Your task to perform on an android device: turn off translation in the chrome app Image 0: 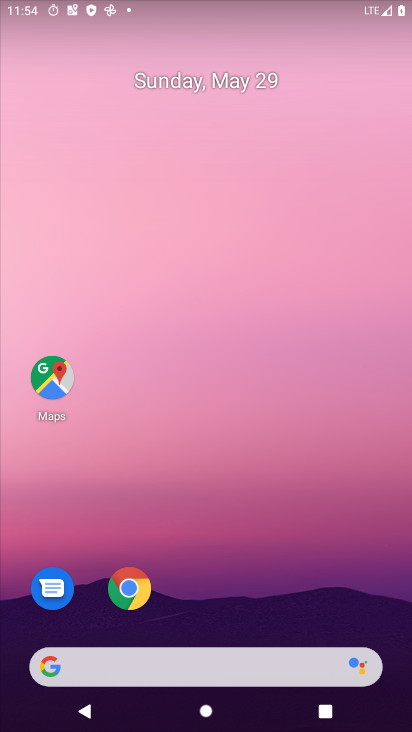
Step 0: drag from (204, 618) to (255, 137)
Your task to perform on an android device: turn off translation in the chrome app Image 1: 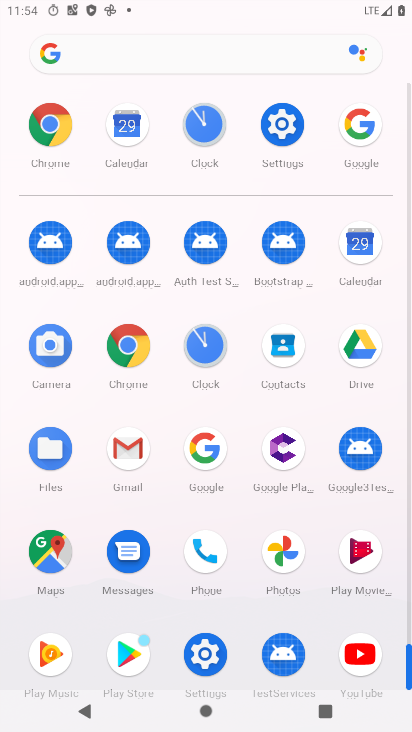
Step 1: click (128, 366)
Your task to perform on an android device: turn off translation in the chrome app Image 2: 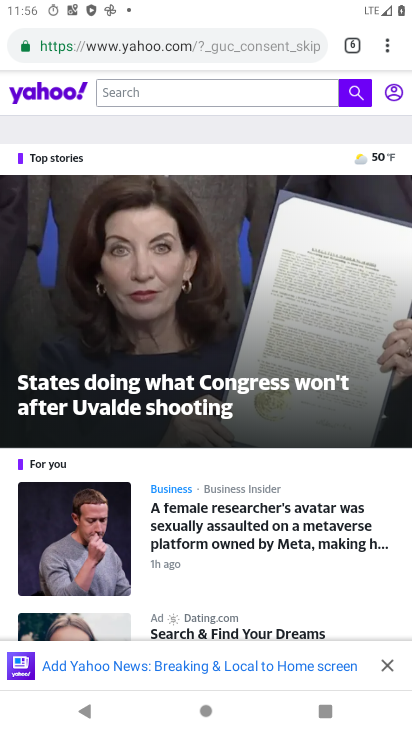
Step 2: click (381, 51)
Your task to perform on an android device: turn off translation in the chrome app Image 3: 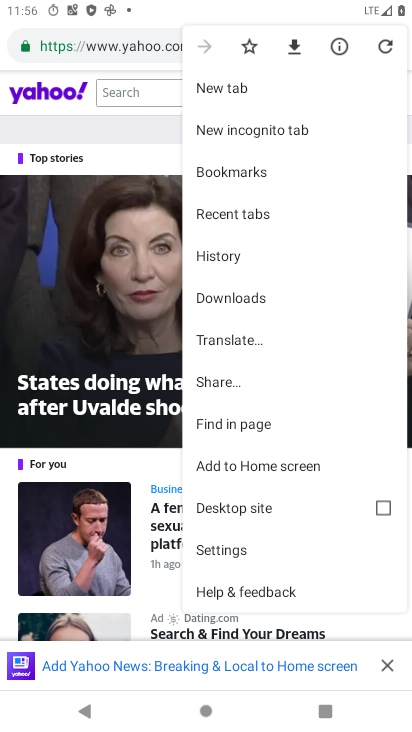
Step 3: click (241, 546)
Your task to perform on an android device: turn off translation in the chrome app Image 4: 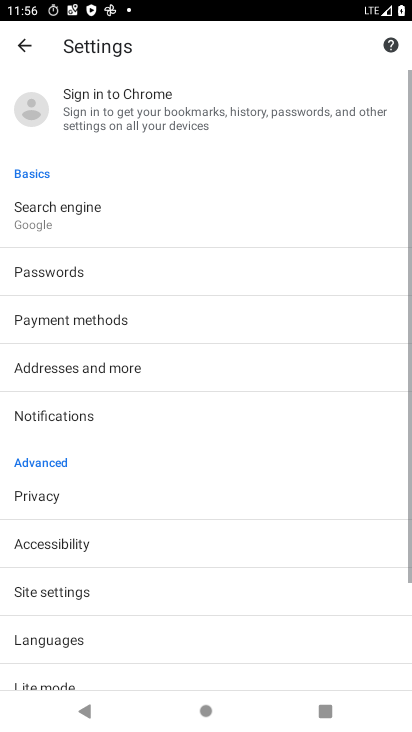
Step 4: drag from (93, 599) to (198, 244)
Your task to perform on an android device: turn off translation in the chrome app Image 5: 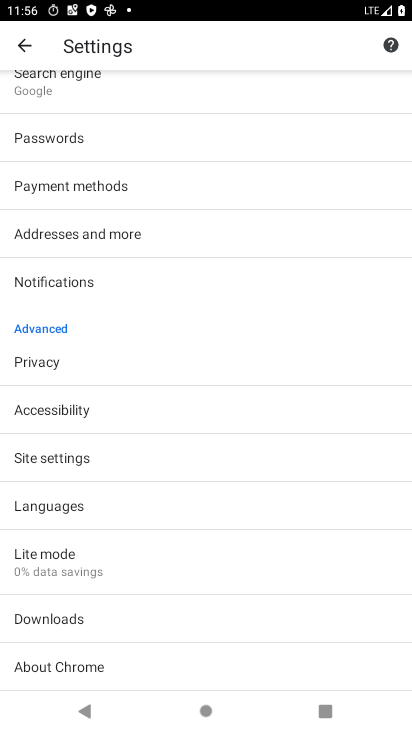
Step 5: click (106, 511)
Your task to perform on an android device: turn off translation in the chrome app Image 6: 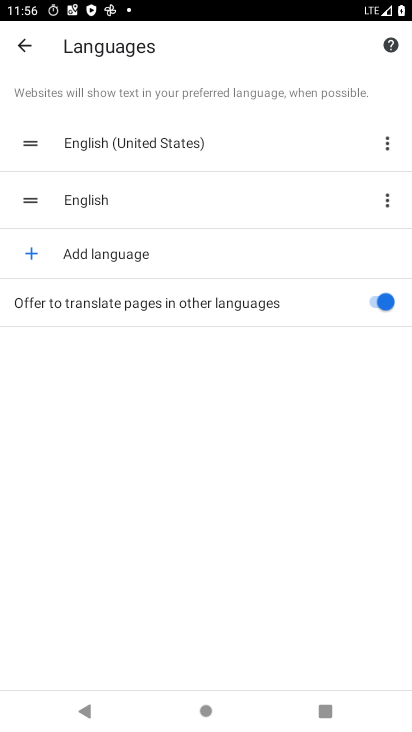
Step 6: click (375, 308)
Your task to perform on an android device: turn off translation in the chrome app Image 7: 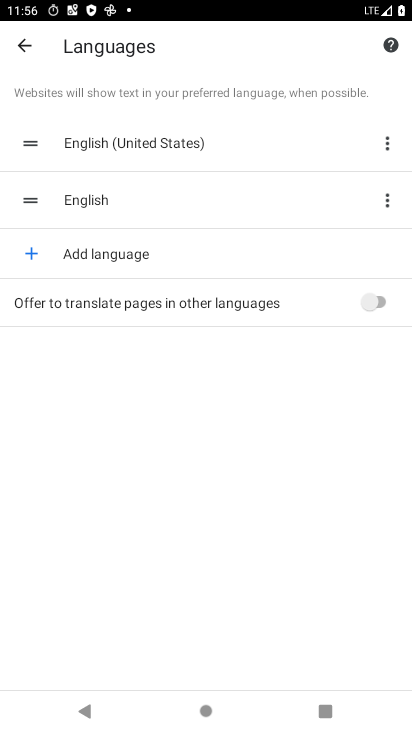
Step 7: task complete